Your task to perform on an android device: Open Google Image 0: 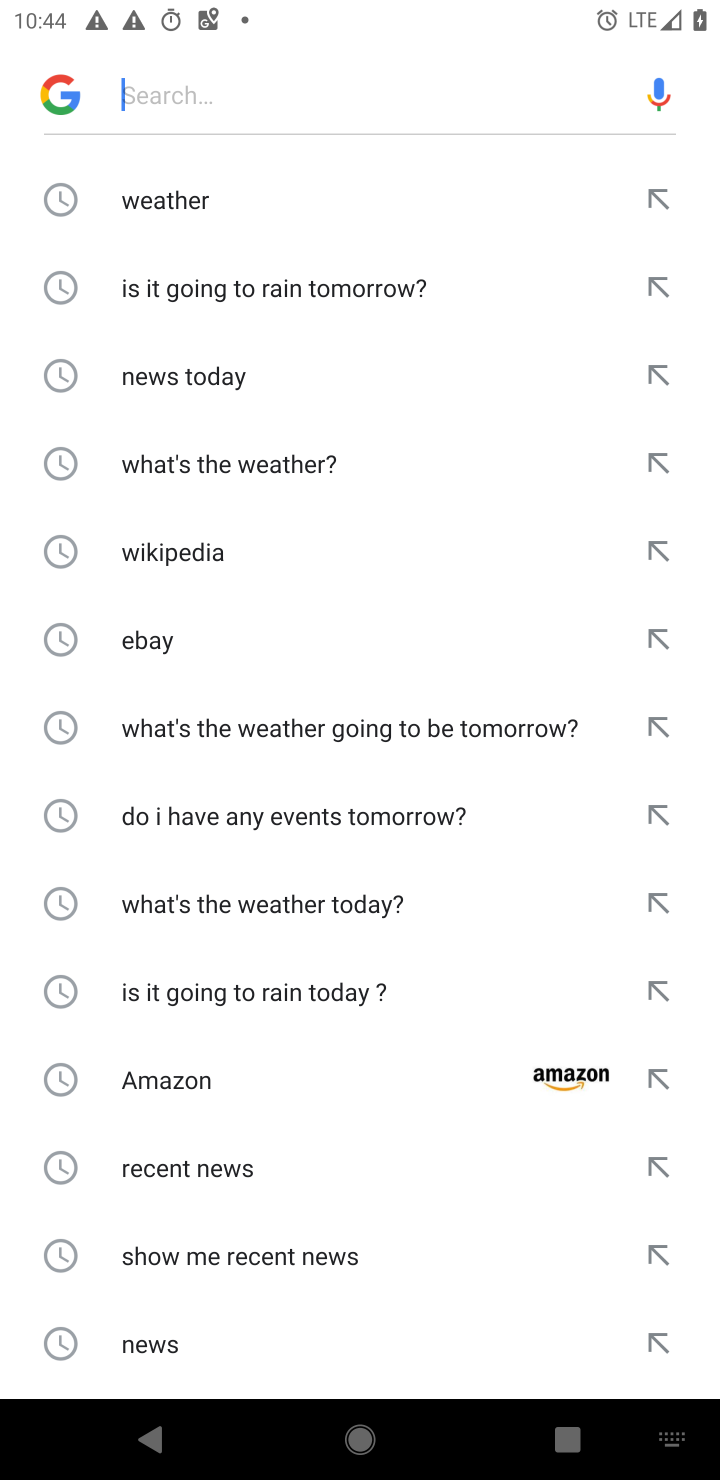
Step 0: task complete